Your task to perform on an android device: Do I have any events tomorrow? Image 0: 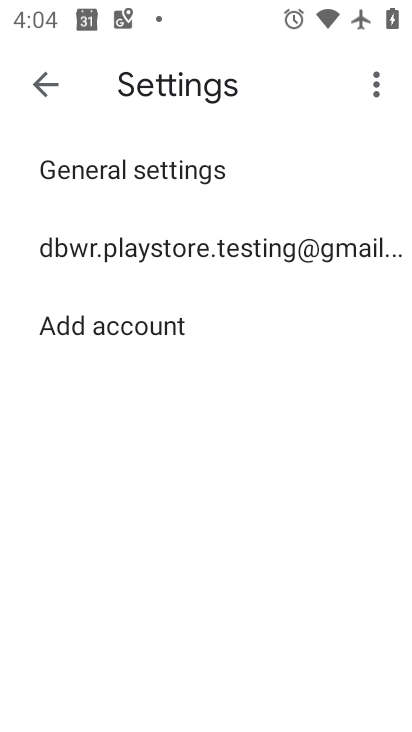
Step 0: press home button
Your task to perform on an android device: Do I have any events tomorrow? Image 1: 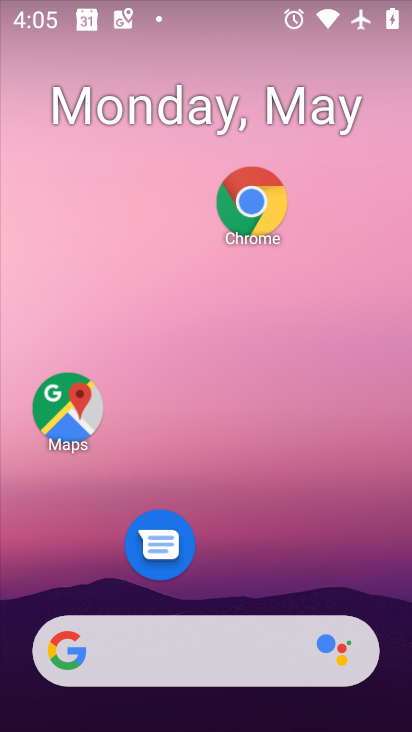
Step 1: drag from (239, 582) to (239, 152)
Your task to perform on an android device: Do I have any events tomorrow? Image 2: 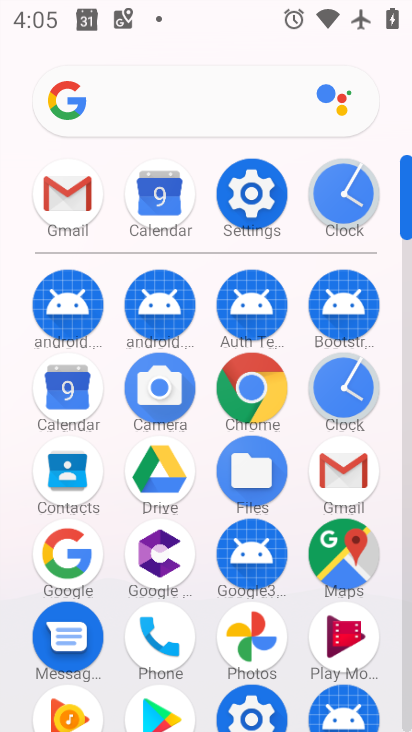
Step 2: click (86, 402)
Your task to perform on an android device: Do I have any events tomorrow? Image 3: 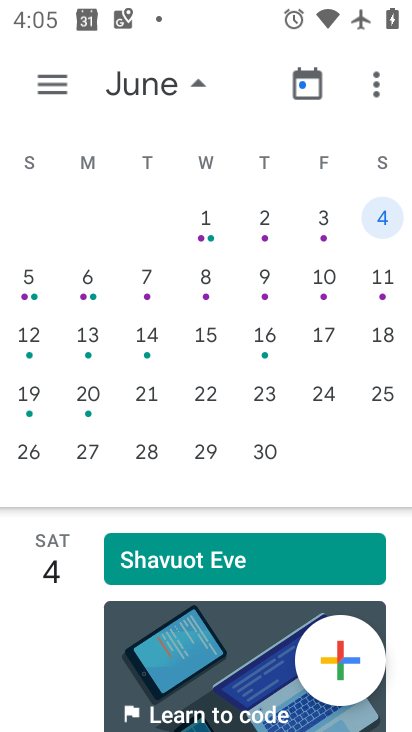
Step 3: drag from (51, 304) to (407, 320)
Your task to perform on an android device: Do I have any events tomorrow? Image 4: 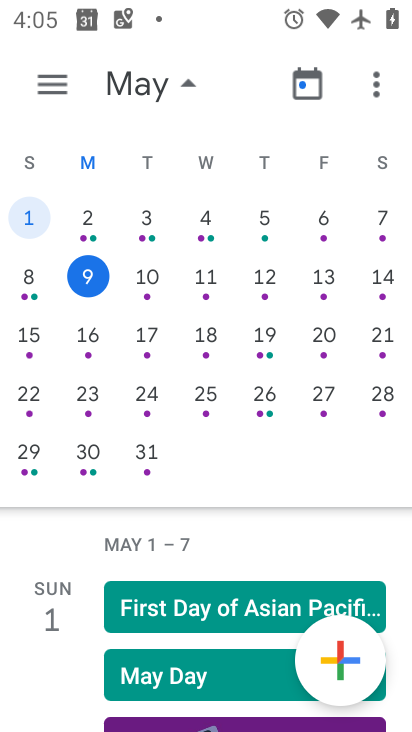
Step 4: click (149, 270)
Your task to perform on an android device: Do I have any events tomorrow? Image 5: 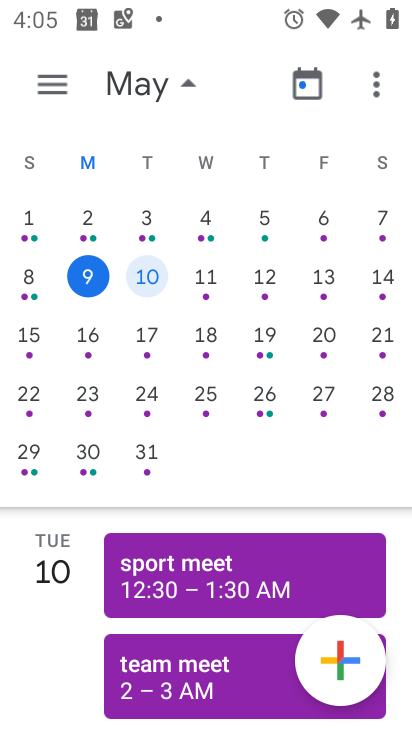
Step 5: click (152, 283)
Your task to perform on an android device: Do I have any events tomorrow? Image 6: 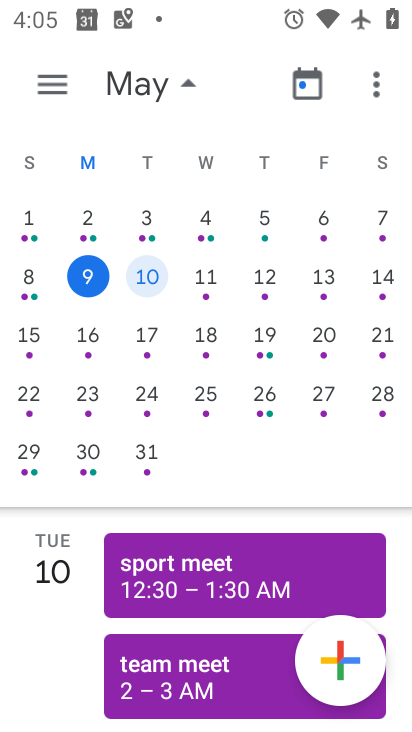
Step 6: click (152, 283)
Your task to perform on an android device: Do I have any events tomorrow? Image 7: 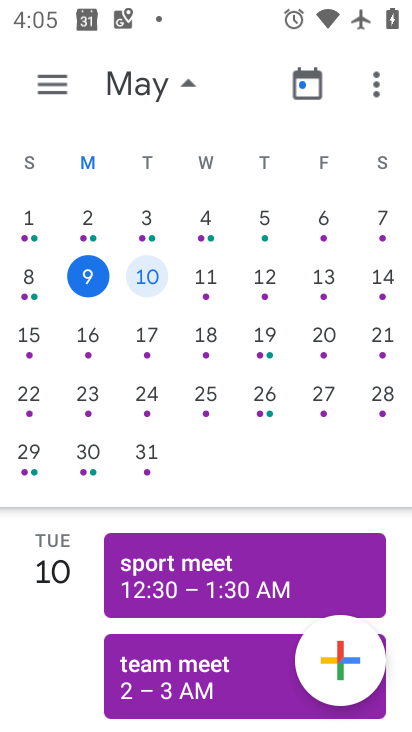
Step 7: task complete